Your task to perform on an android device: turn on showing notifications on the lock screen Image 0: 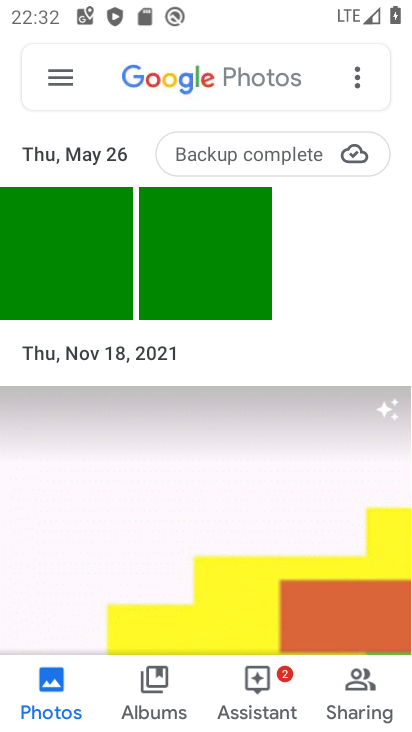
Step 0: press home button
Your task to perform on an android device: turn on showing notifications on the lock screen Image 1: 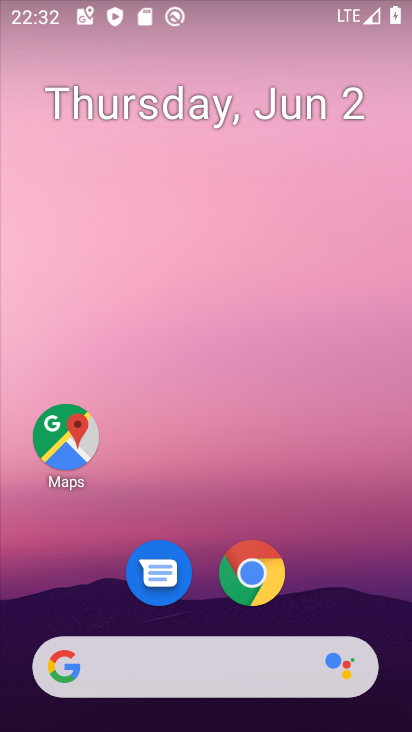
Step 1: drag from (329, 591) to (309, 115)
Your task to perform on an android device: turn on showing notifications on the lock screen Image 2: 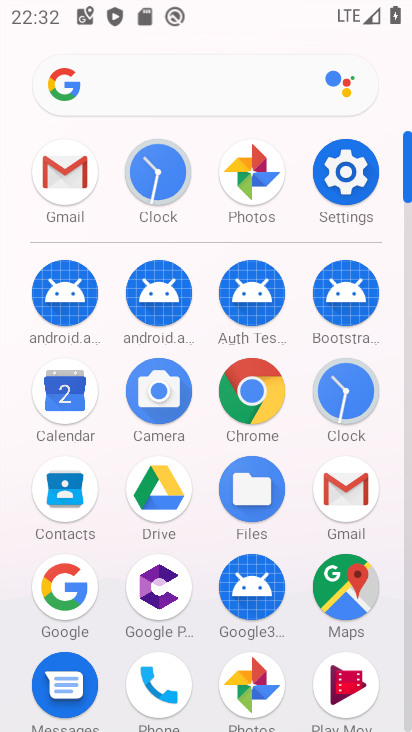
Step 2: click (337, 178)
Your task to perform on an android device: turn on showing notifications on the lock screen Image 3: 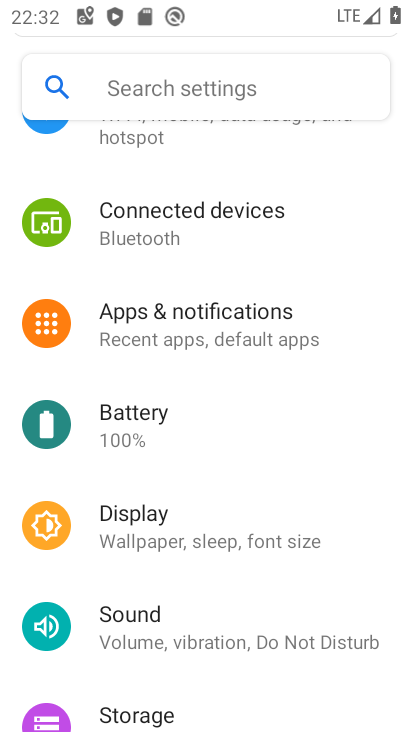
Step 3: click (247, 324)
Your task to perform on an android device: turn on showing notifications on the lock screen Image 4: 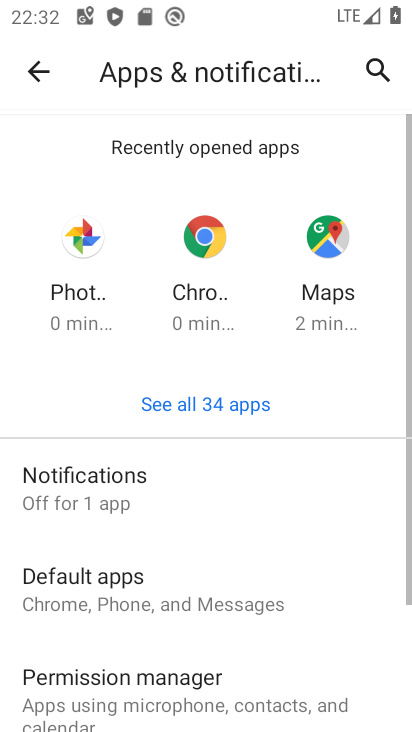
Step 4: click (120, 481)
Your task to perform on an android device: turn on showing notifications on the lock screen Image 5: 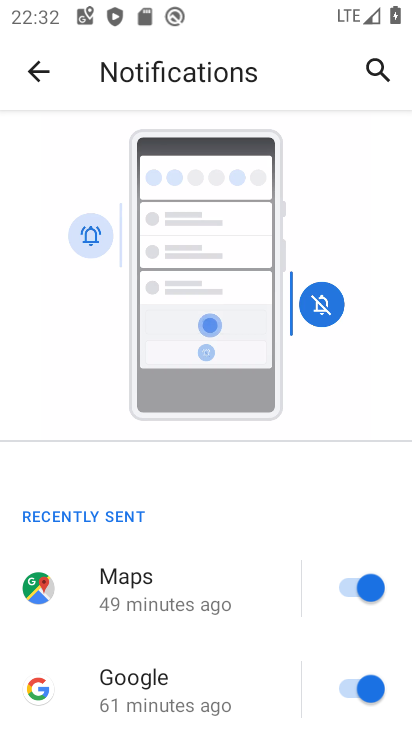
Step 5: drag from (246, 596) to (241, 295)
Your task to perform on an android device: turn on showing notifications on the lock screen Image 6: 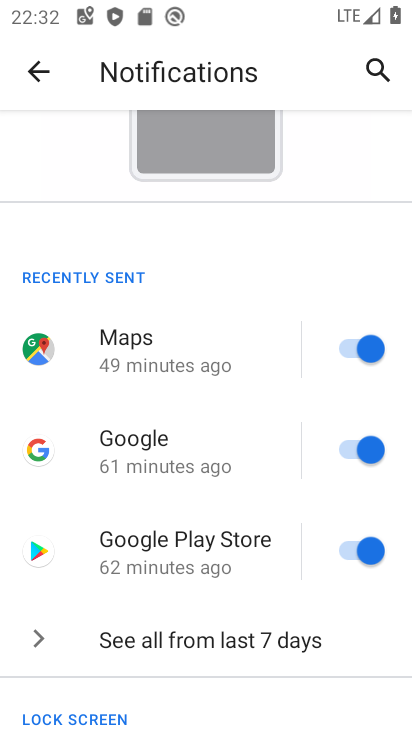
Step 6: drag from (258, 692) to (273, 361)
Your task to perform on an android device: turn on showing notifications on the lock screen Image 7: 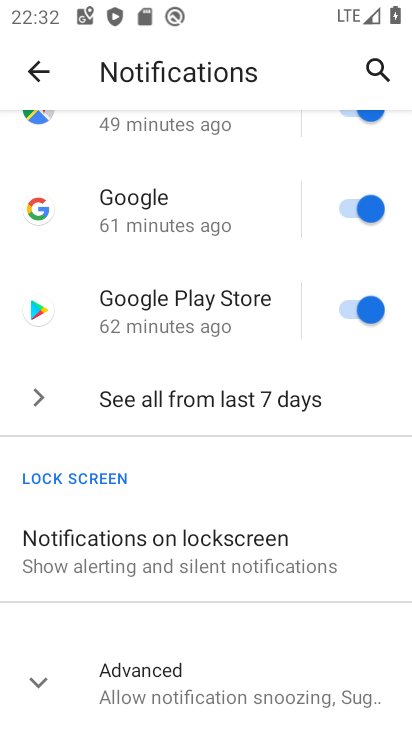
Step 7: click (169, 564)
Your task to perform on an android device: turn on showing notifications on the lock screen Image 8: 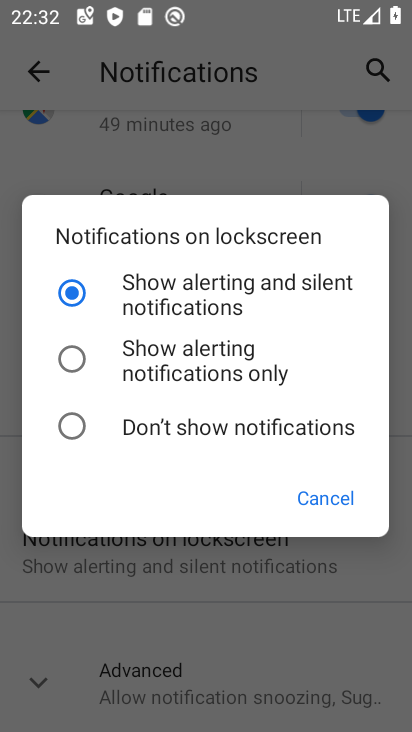
Step 8: click (172, 309)
Your task to perform on an android device: turn on showing notifications on the lock screen Image 9: 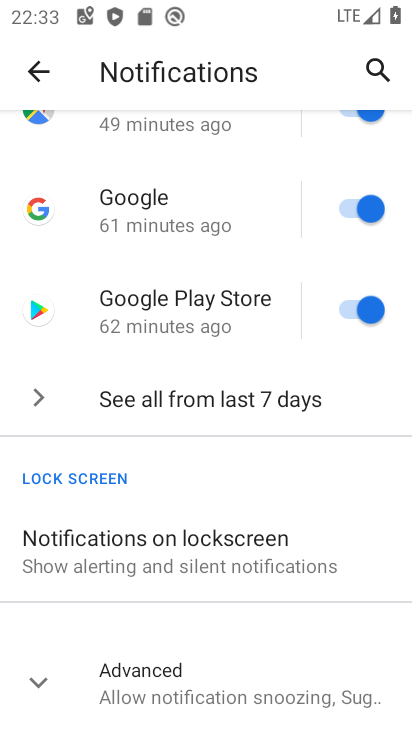
Step 9: task complete